Your task to perform on an android device: clear all cookies in the chrome app Image 0: 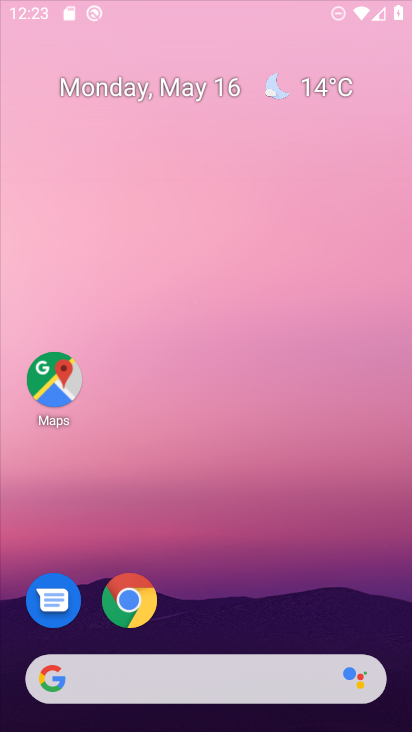
Step 0: press home button
Your task to perform on an android device: clear all cookies in the chrome app Image 1: 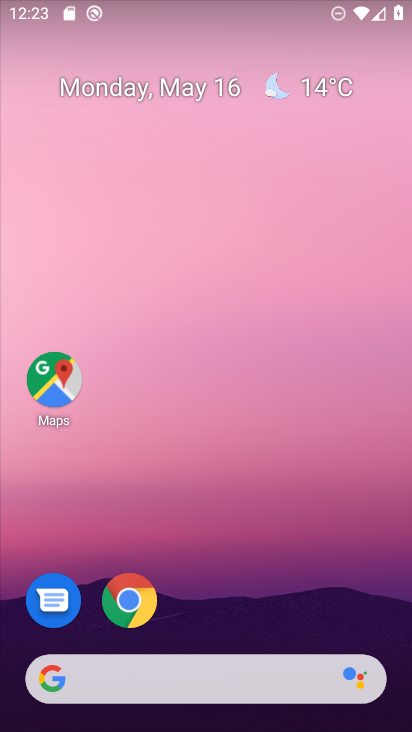
Step 1: click (125, 592)
Your task to perform on an android device: clear all cookies in the chrome app Image 2: 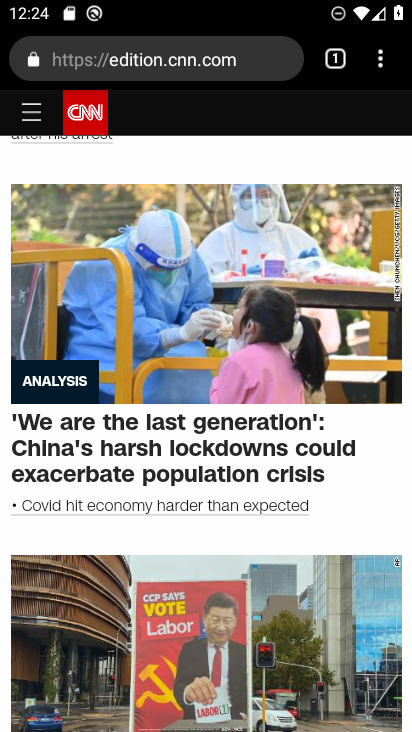
Step 2: click (382, 52)
Your task to perform on an android device: clear all cookies in the chrome app Image 3: 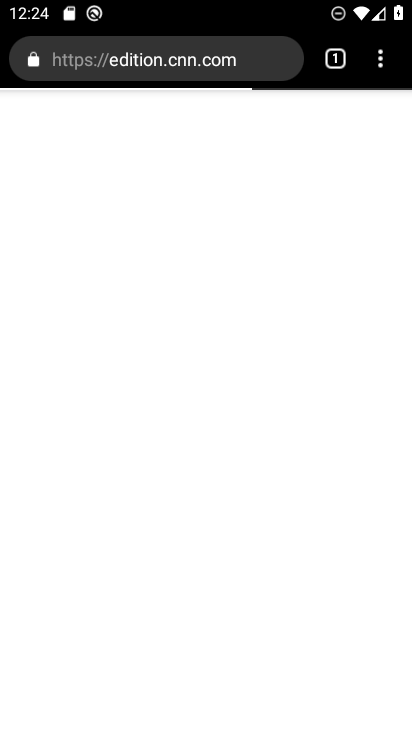
Step 3: click (381, 56)
Your task to perform on an android device: clear all cookies in the chrome app Image 4: 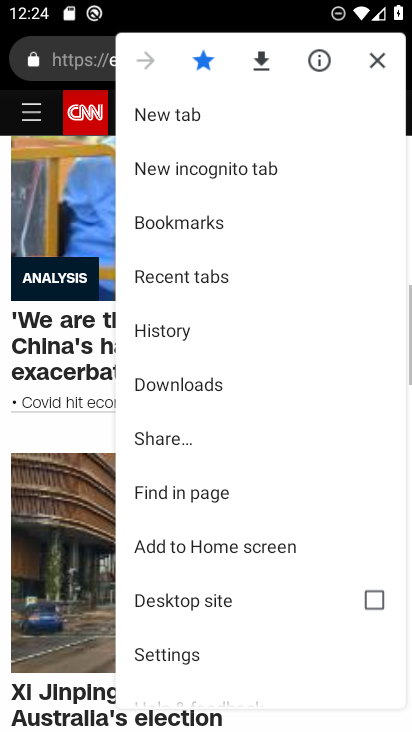
Step 4: click (199, 328)
Your task to perform on an android device: clear all cookies in the chrome app Image 5: 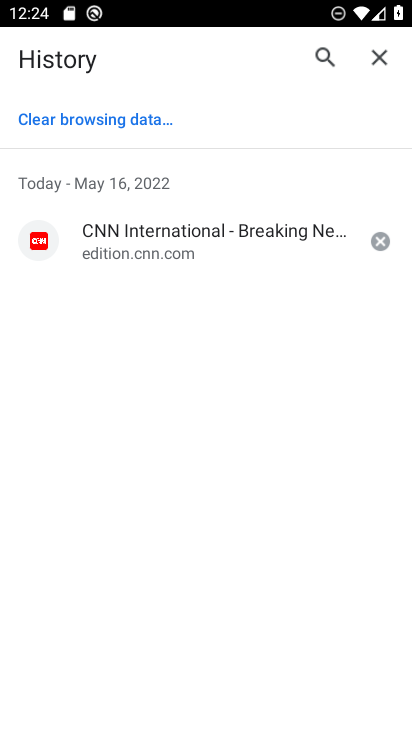
Step 5: click (102, 118)
Your task to perform on an android device: clear all cookies in the chrome app Image 6: 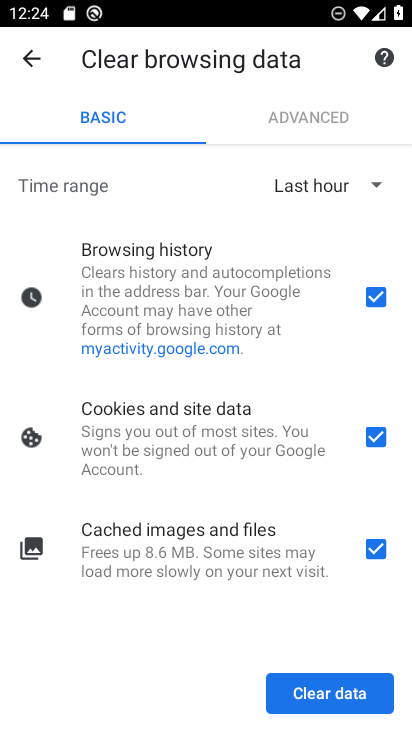
Step 6: click (373, 294)
Your task to perform on an android device: clear all cookies in the chrome app Image 7: 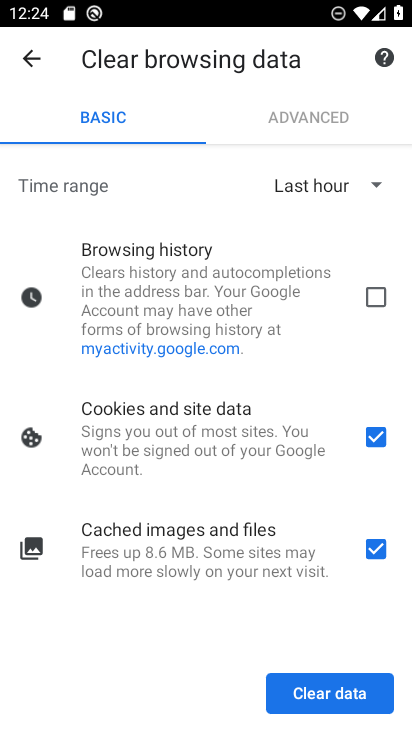
Step 7: click (377, 550)
Your task to perform on an android device: clear all cookies in the chrome app Image 8: 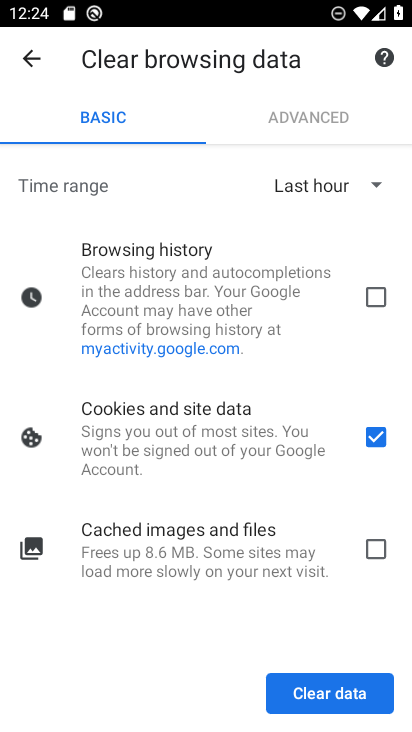
Step 8: click (337, 690)
Your task to perform on an android device: clear all cookies in the chrome app Image 9: 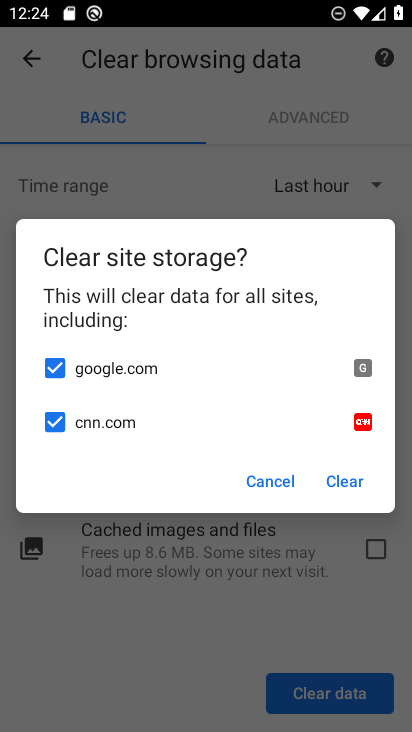
Step 9: click (342, 487)
Your task to perform on an android device: clear all cookies in the chrome app Image 10: 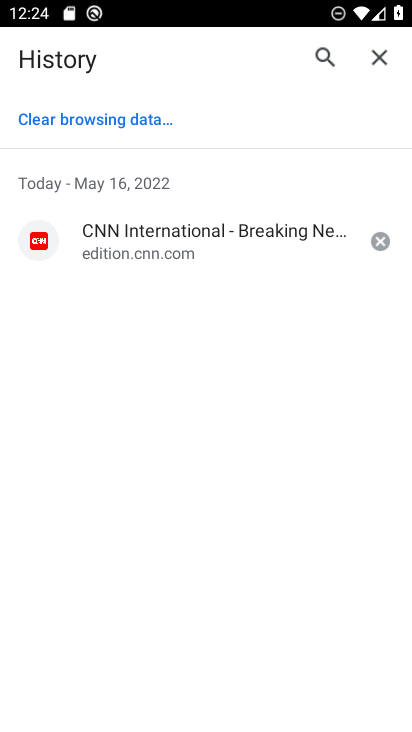
Step 10: task complete